Your task to perform on an android device: open a new tab in the chrome app Image 0: 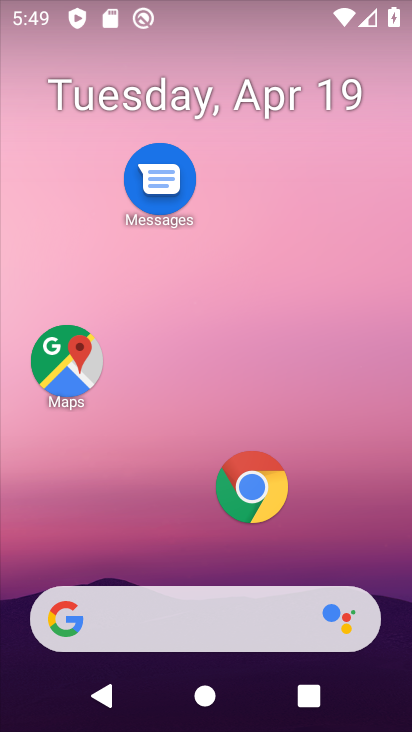
Step 0: press home button
Your task to perform on an android device: open a new tab in the chrome app Image 1: 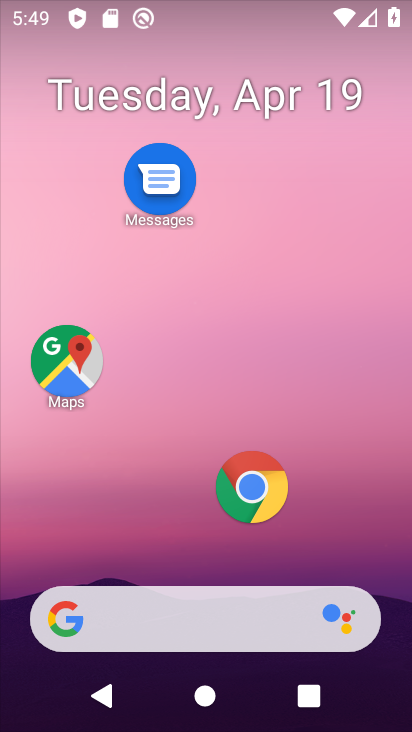
Step 1: click (249, 483)
Your task to perform on an android device: open a new tab in the chrome app Image 2: 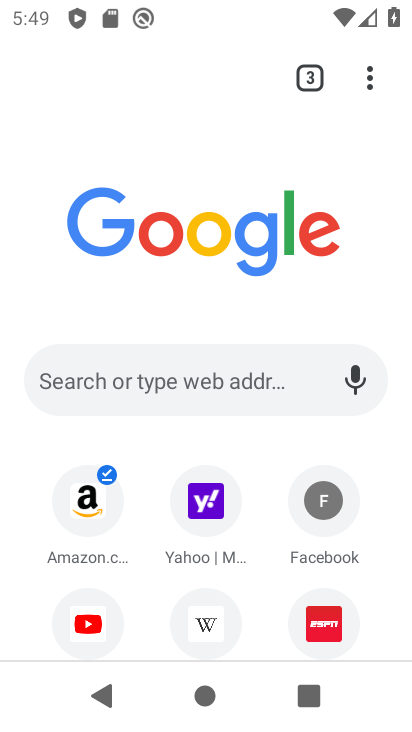
Step 2: click (309, 72)
Your task to perform on an android device: open a new tab in the chrome app Image 3: 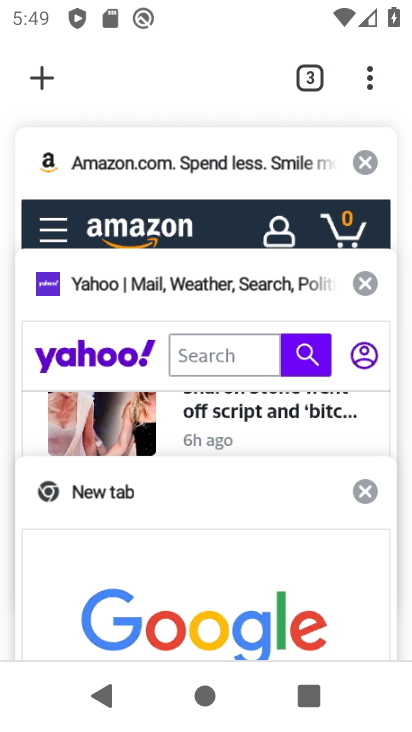
Step 3: click (47, 83)
Your task to perform on an android device: open a new tab in the chrome app Image 4: 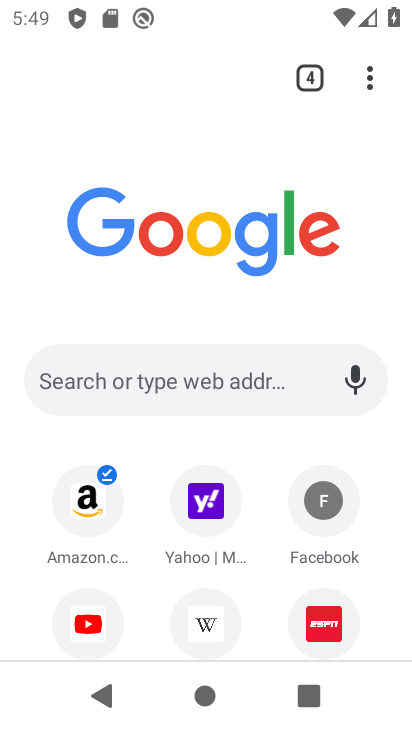
Step 4: task complete